Your task to perform on an android device: Clear the cart on ebay.com. Search for bose quietcomfort 35 on ebay.com, select the first entry, and add it to the cart. Image 0: 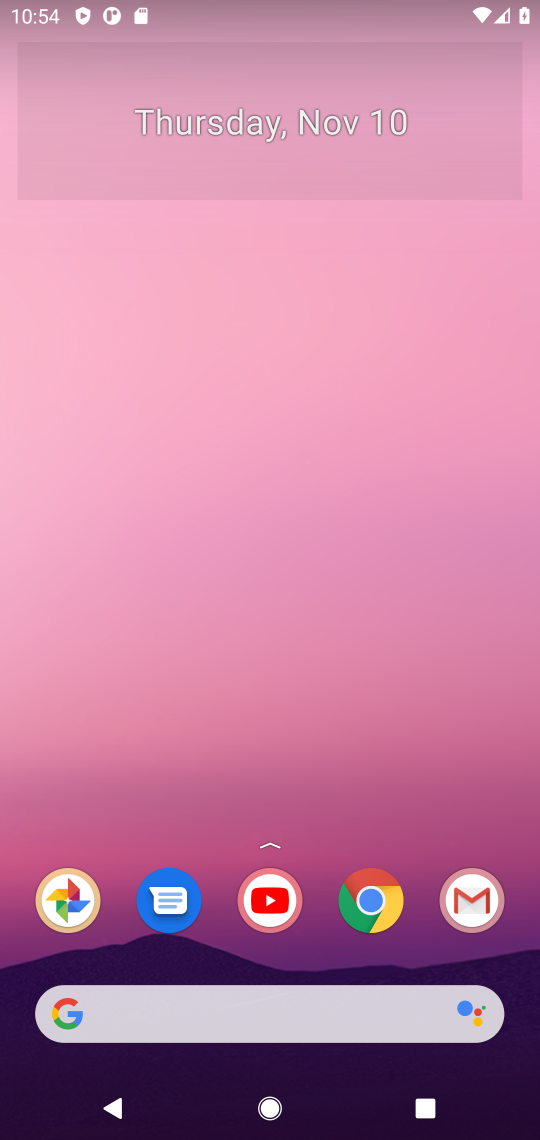
Step 0: click (370, 909)
Your task to perform on an android device: Clear the cart on ebay.com. Search for bose quietcomfort 35 on ebay.com, select the first entry, and add it to the cart. Image 1: 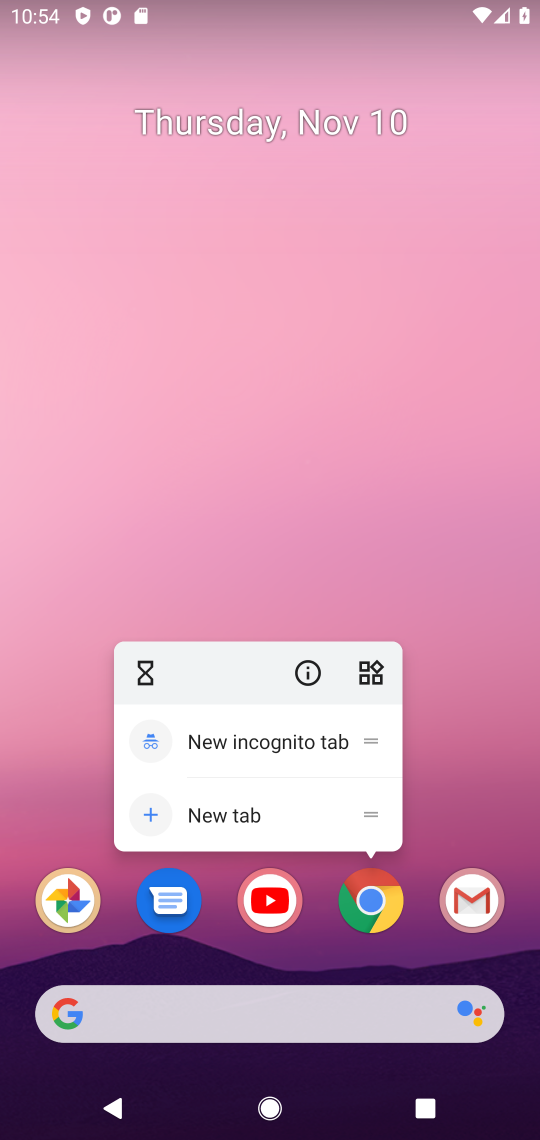
Step 1: click (370, 905)
Your task to perform on an android device: Clear the cart on ebay.com. Search for bose quietcomfort 35 on ebay.com, select the first entry, and add it to the cart. Image 2: 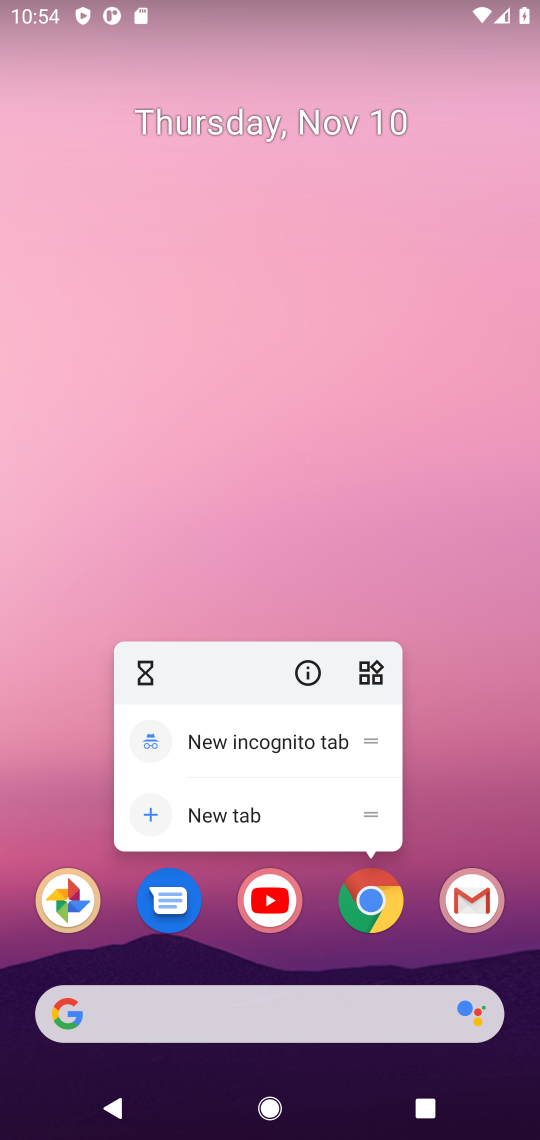
Step 2: click (370, 906)
Your task to perform on an android device: Clear the cart on ebay.com. Search for bose quietcomfort 35 on ebay.com, select the first entry, and add it to the cart. Image 3: 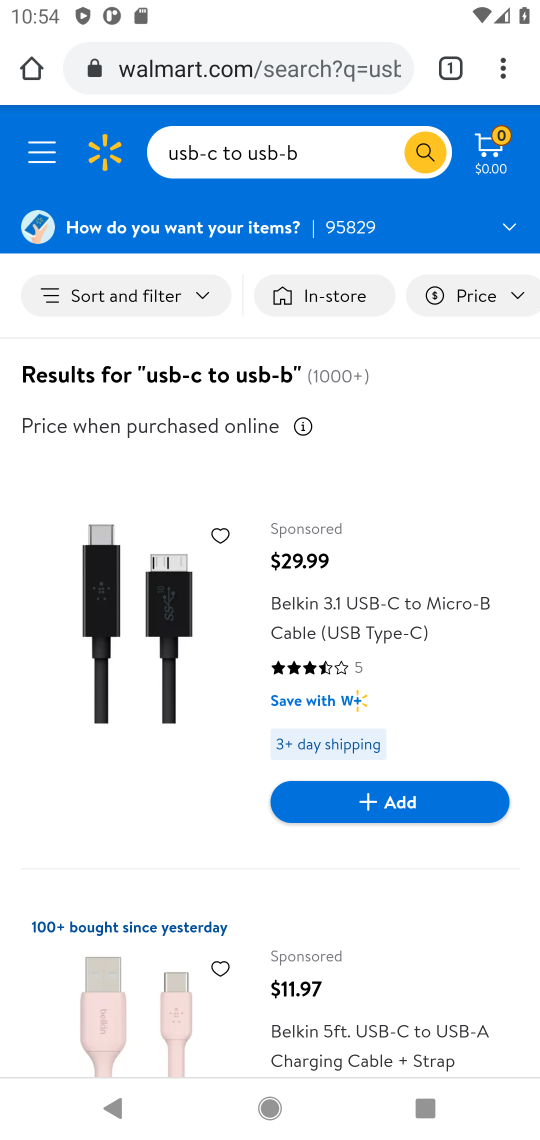
Step 3: click (269, 68)
Your task to perform on an android device: Clear the cart on ebay.com. Search for bose quietcomfort 35 on ebay.com, select the first entry, and add it to the cart. Image 4: 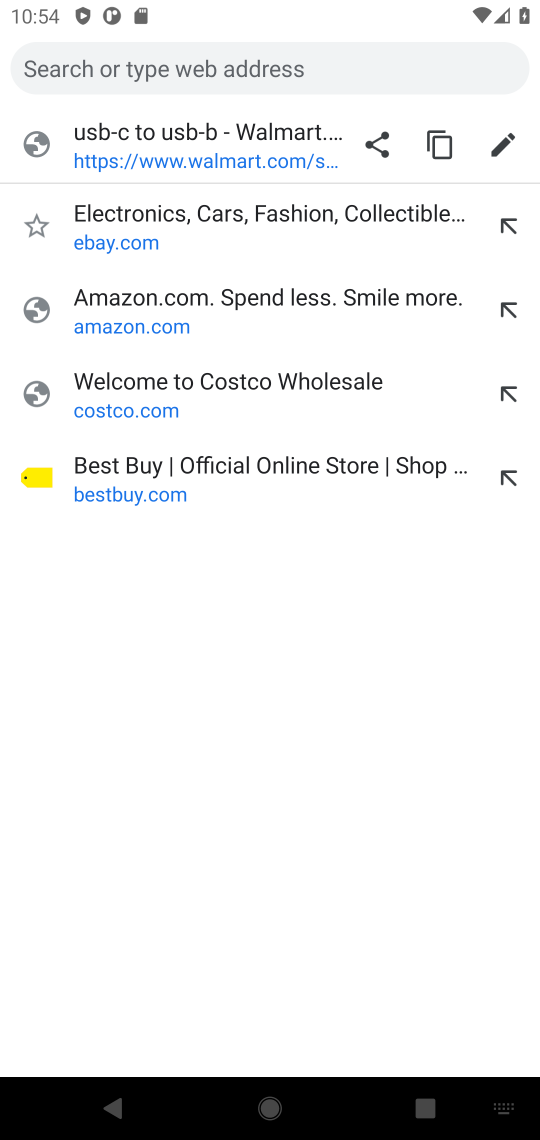
Step 4: click (116, 238)
Your task to perform on an android device: Clear the cart on ebay.com. Search for bose quietcomfort 35 on ebay.com, select the first entry, and add it to the cart. Image 5: 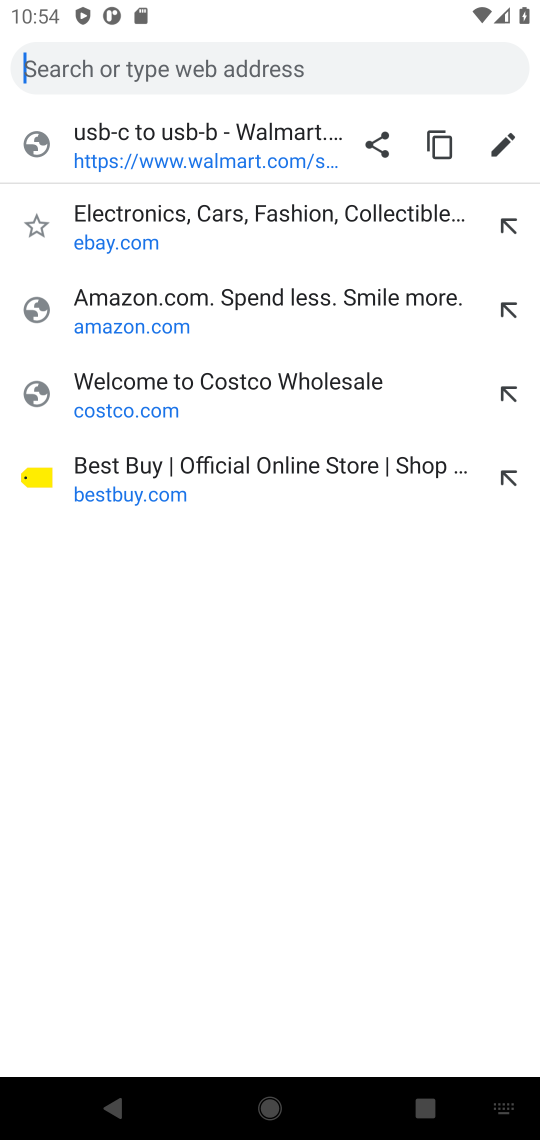
Step 5: click (86, 241)
Your task to perform on an android device: Clear the cart on ebay.com. Search for bose quietcomfort 35 on ebay.com, select the first entry, and add it to the cart. Image 6: 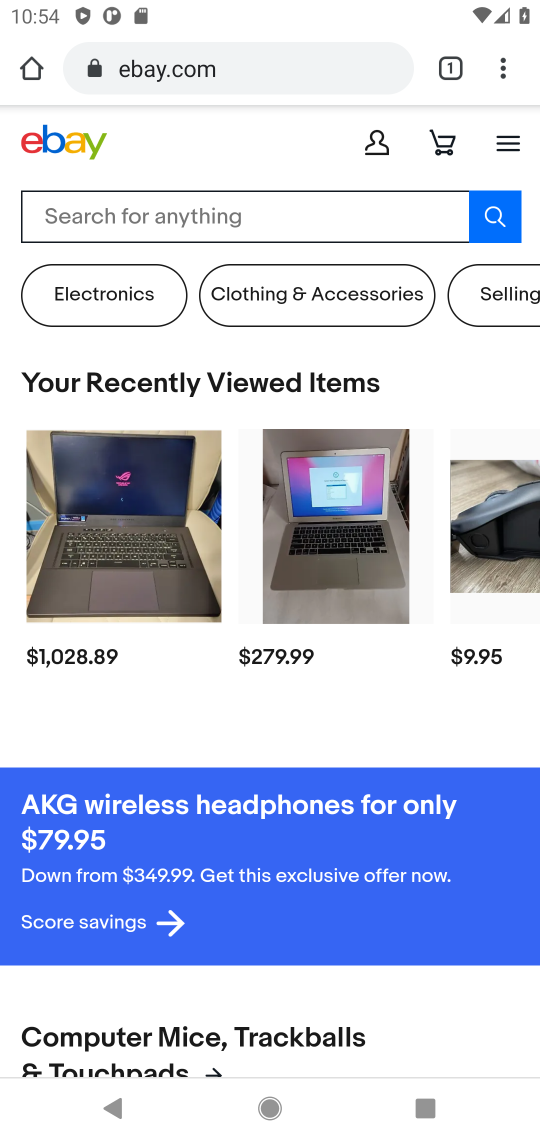
Step 6: click (263, 209)
Your task to perform on an android device: Clear the cart on ebay.com. Search for bose quietcomfort 35 on ebay.com, select the first entry, and add it to the cart. Image 7: 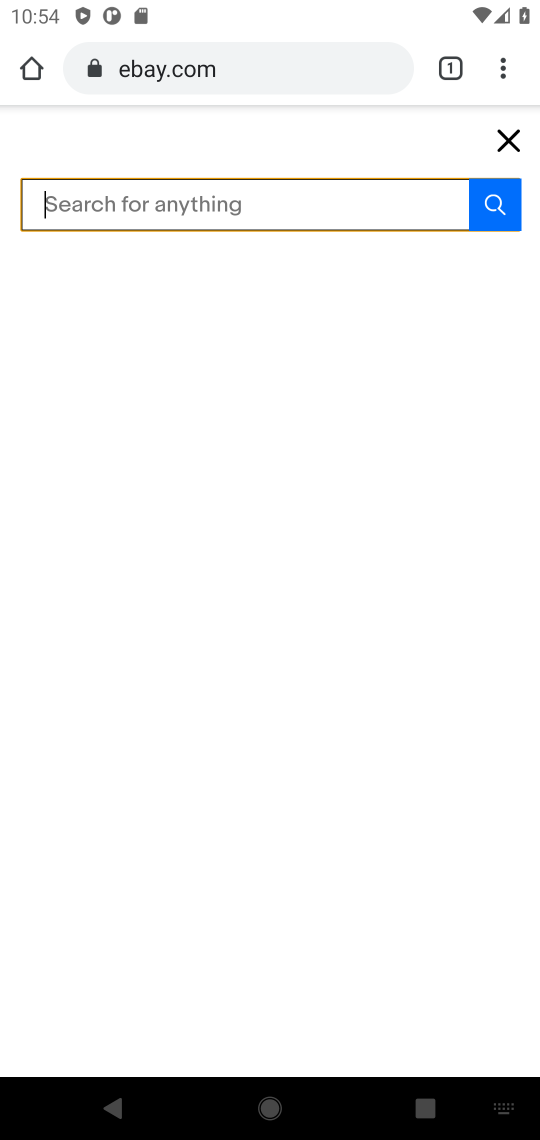
Step 7: type "bose quietcomfort 35"
Your task to perform on an android device: Clear the cart on ebay.com. Search for bose quietcomfort 35 on ebay.com, select the first entry, and add it to the cart. Image 8: 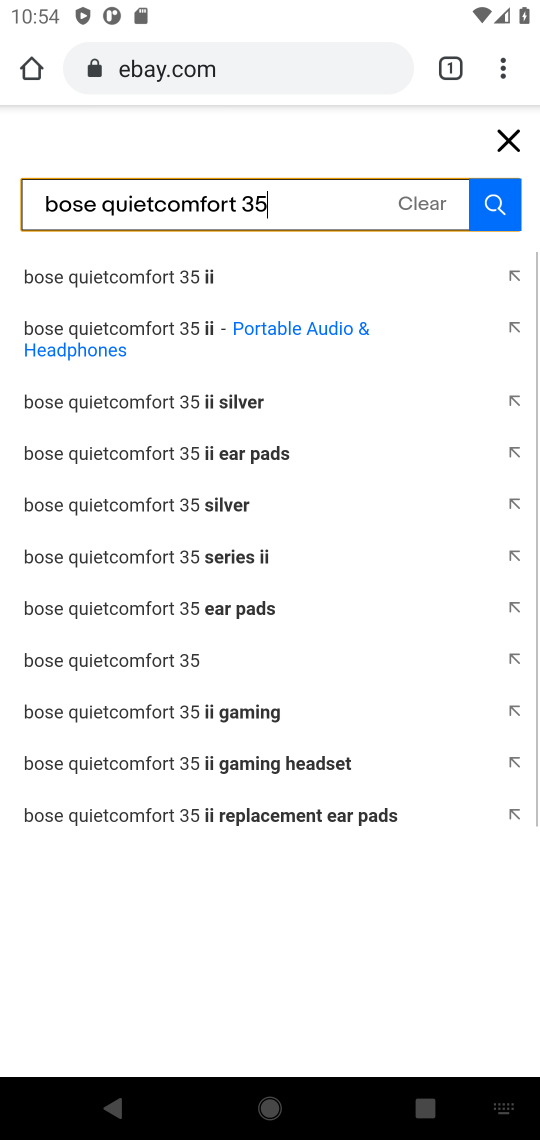
Step 8: press enter
Your task to perform on an android device: Clear the cart on ebay.com. Search for bose quietcomfort 35 on ebay.com, select the first entry, and add it to the cart. Image 9: 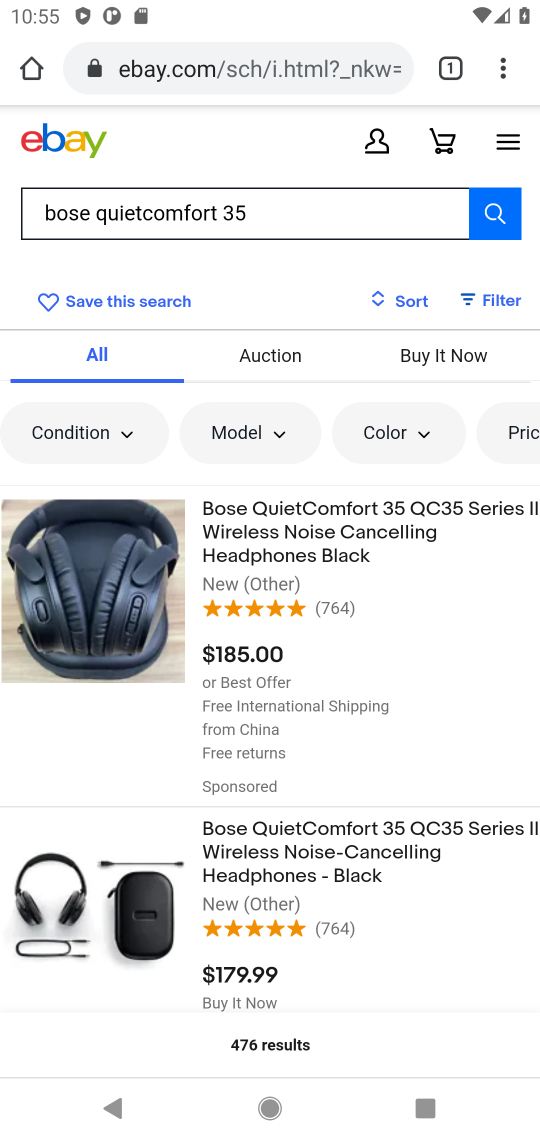
Step 9: click (289, 545)
Your task to perform on an android device: Clear the cart on ebay.com. Search for bose quietcomfort 35 on ebay.com, select the first entry, and add it to the cart. Image 10: 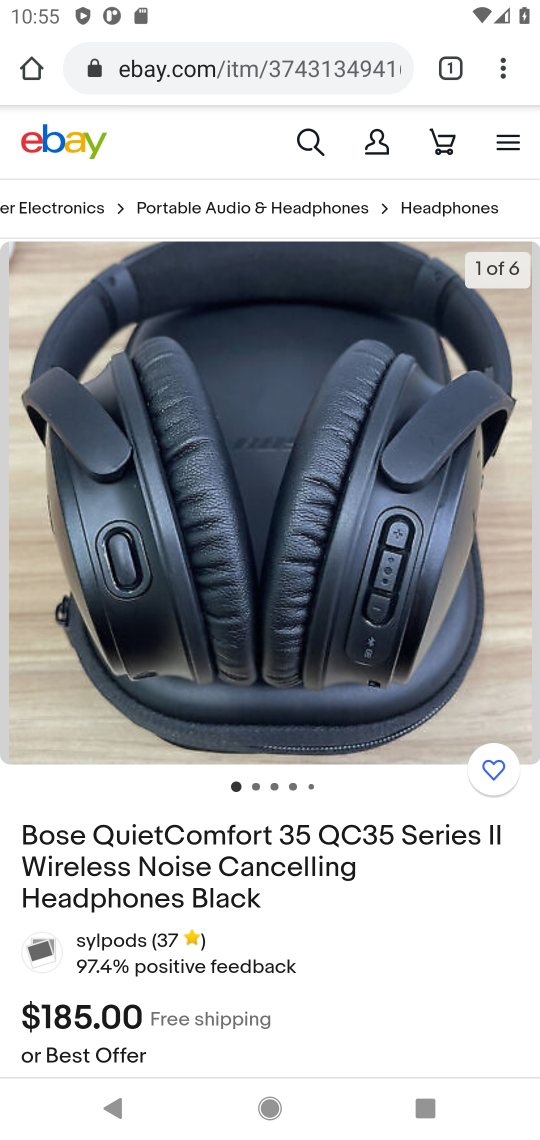
Step 10: drag from (359, 938) to (454, 174)
Your task to perform on an android device: Clear the cart on ebay.com. Search for bose quietcomfort 35 on ebay.com, select the first entry, and add it to the cart. Image 11: 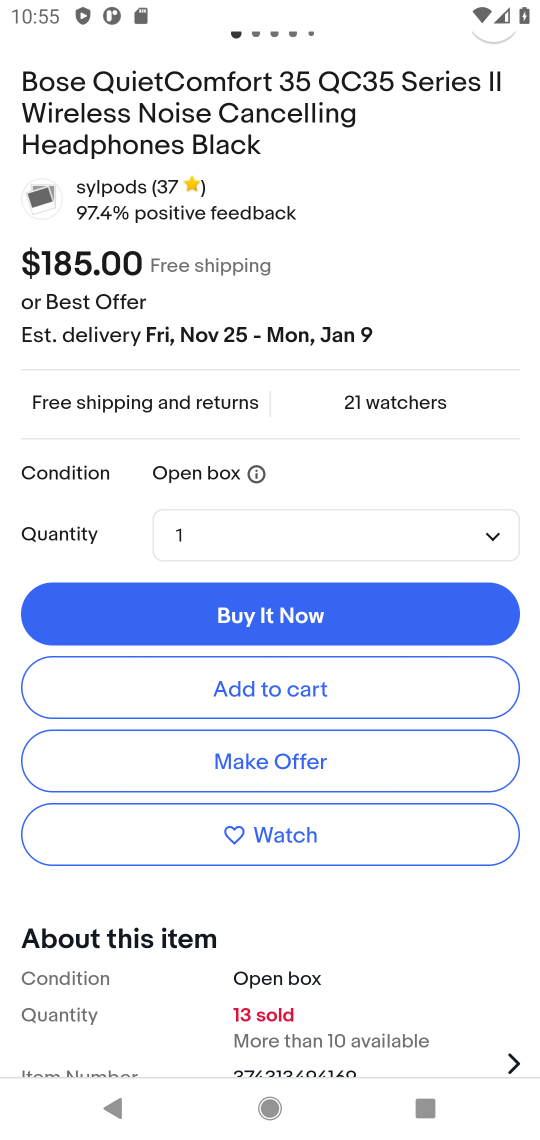
Step 11: click (278, 686)
Your task to perform on an android device: Clear the cart on ebay.com. Search for bose quietcomfort 35 on ebay.com, select the first entry, and add it to the cart. Image 12: 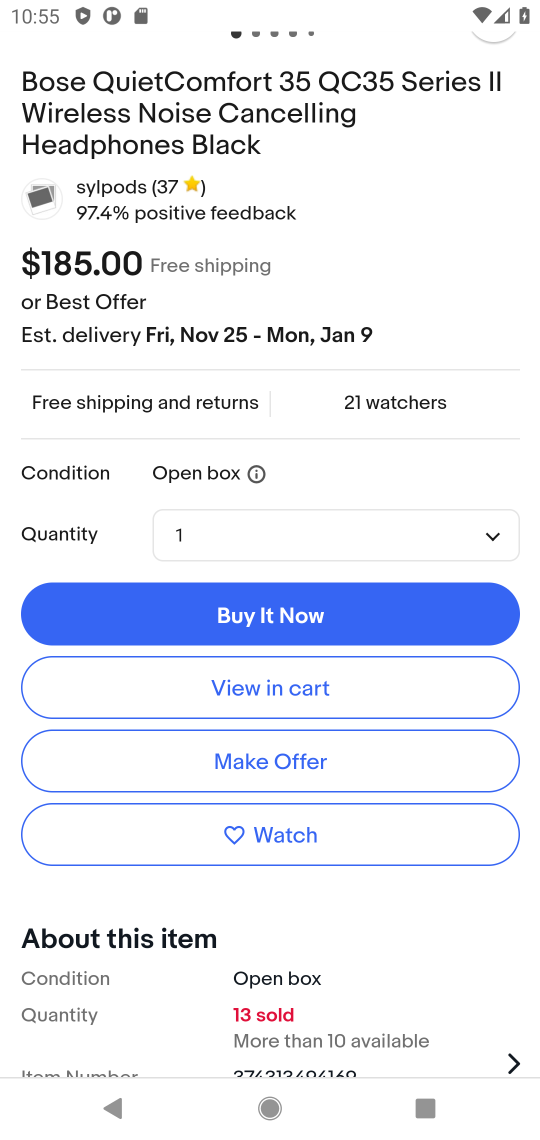
Step 12: click (309, 685)
Your task to perform on an android device: Clear the cart on ebay.com. Search for bose quietcomfort 35 on ebay.com, select the first entry, and add it to the cart. Image 13: 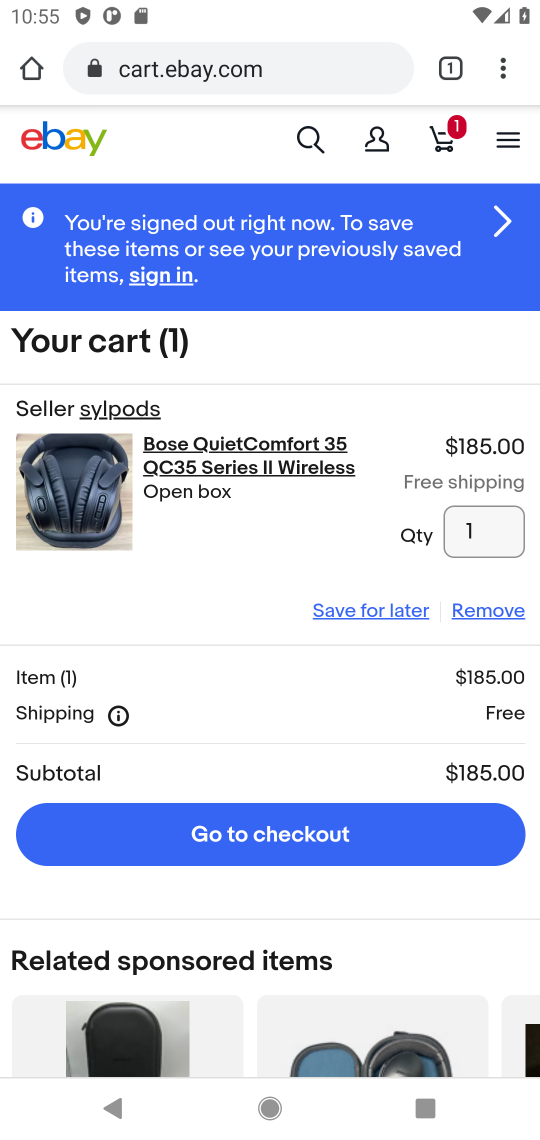
Step 13: task complete